Your task to perform on an android device: turn off priority inbox in the gmail app Image 0: 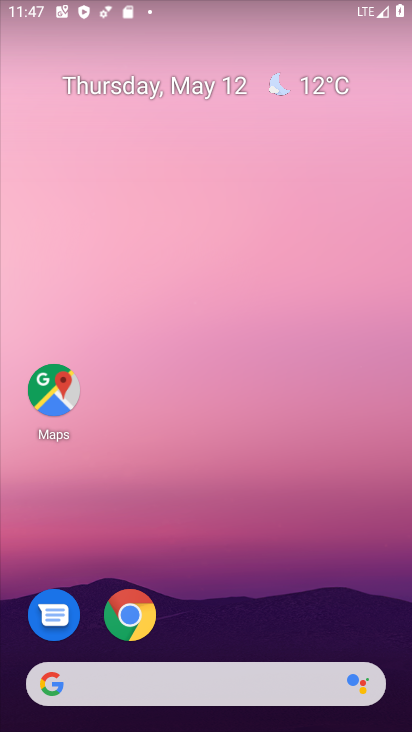
Step 0: drag from (208, 625) to (214, 146)
Your task to perform on an android device: turn off priority inbox in the gmail app Image 1: 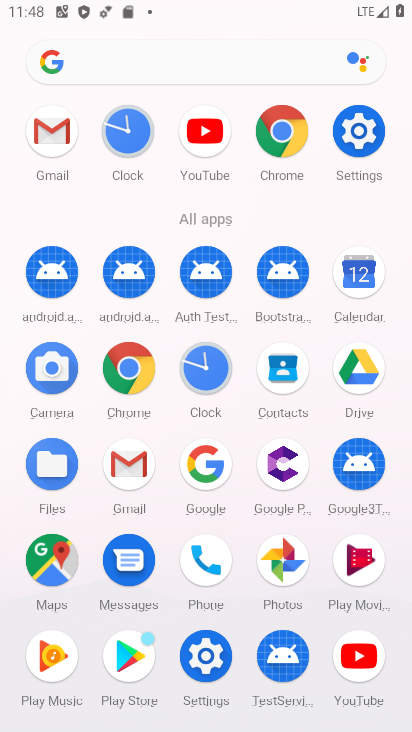
Step 1: drag from (162, 580) to (191, 443)
Your task to perform on an android device: turn off priority inbox in the gmail app Image 2: 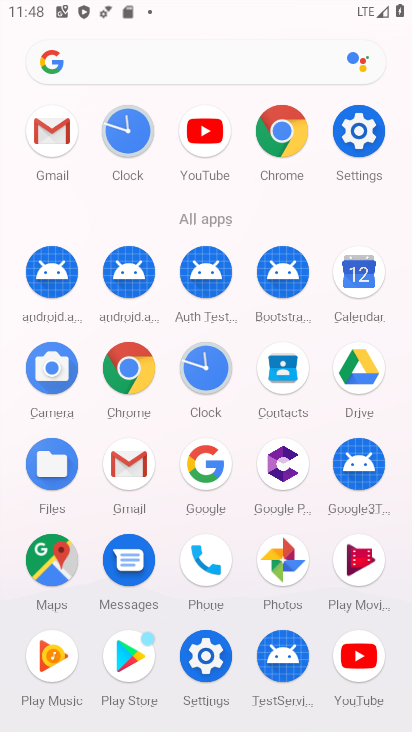
Step 2: click (58, 156)
Your task to perform on an android device: turn off priority inbox in the gmail app Image 3: 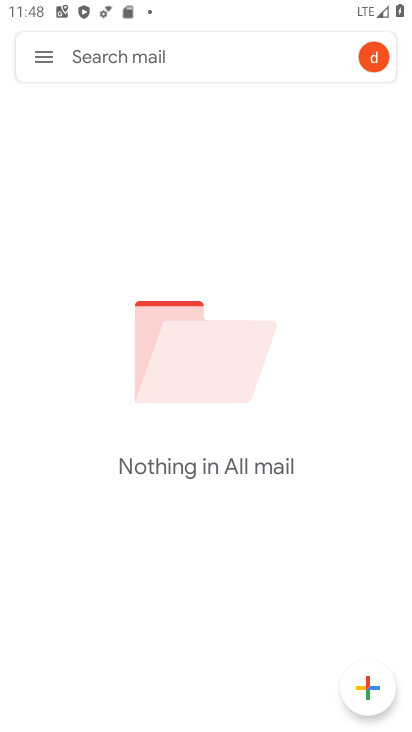
Step 3: click (44, 71)
Your task to perform on an android device: turn off priority inbox in the gmail app Image 4: 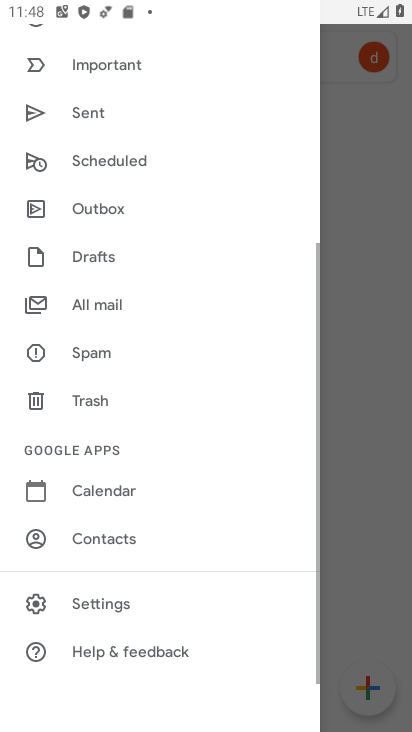
Step 4: click (124, 601)
Your task to perform on an android device: turn off priority inbox in the gmail app Image 5: 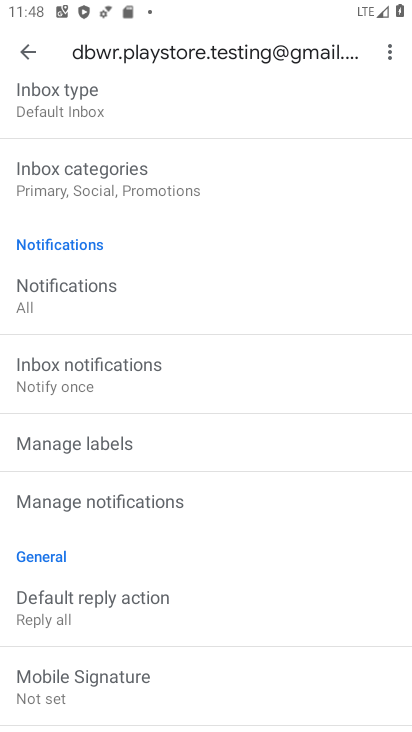
Step 5: drag from (210, 585) to (216, 492)
Your task to perform on an android device: turn off priority inbox in the gmail app Image 6: 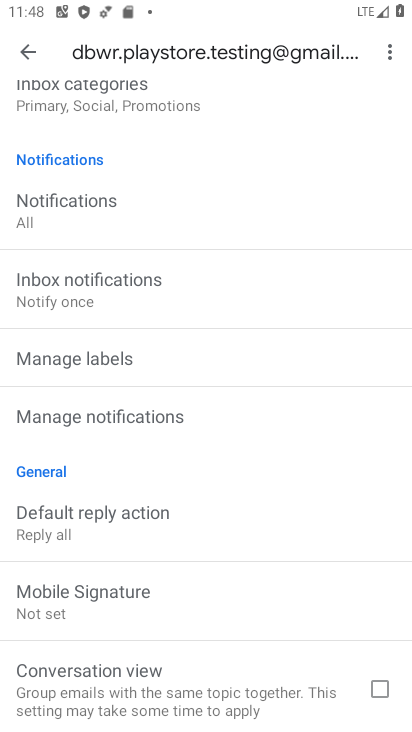
Step 6: drag from (155, 217) to (156, 489)
Your task to perform on an android device: turn off priority inbox in the gmail app Image 7: 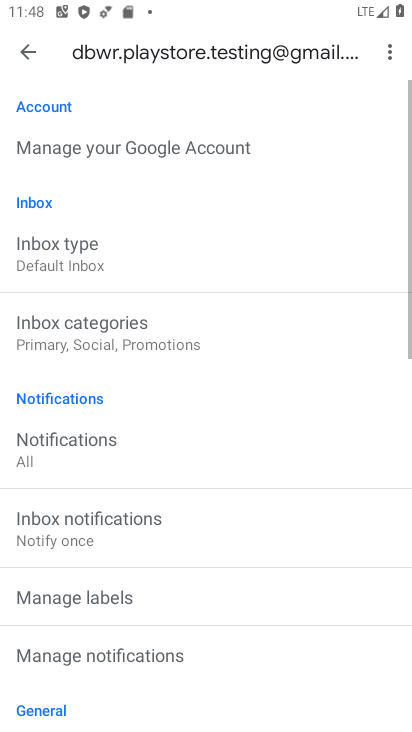
Step 7: click (136, 246)
Your task to perform on an android device: turn off priority inbox in the gmail app Image 8: 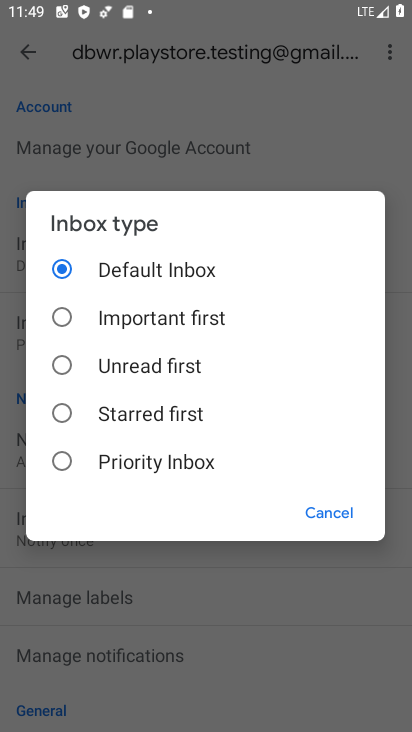
Step 8: click (150, 455)
Your task to perform on an android device: turn off priority inbox in the gmail app Image 9: 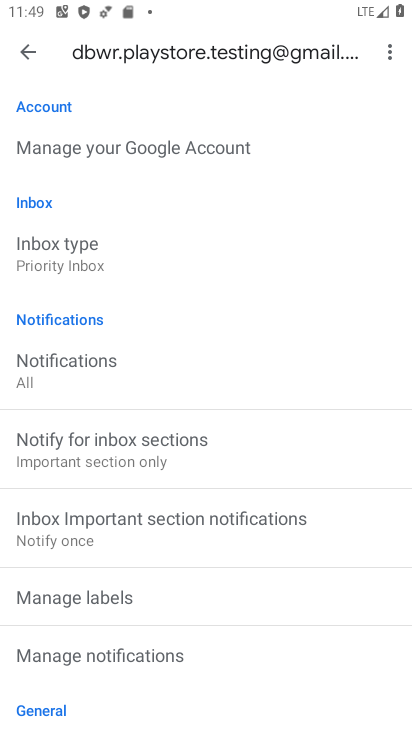
Step 9: task complete